Your task to perform on an android device: When is my next appointment? Image 0: 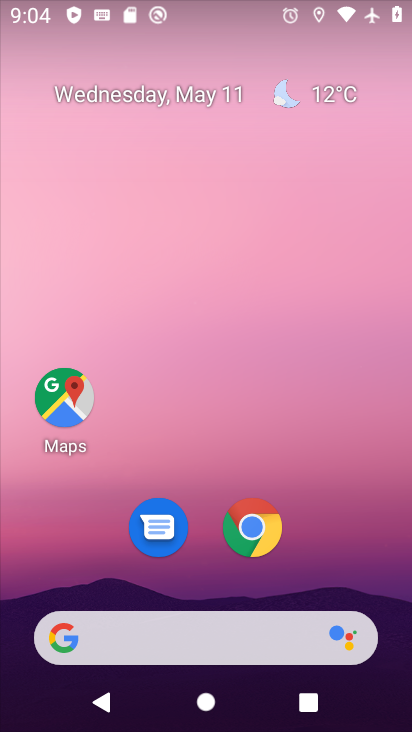
Step 0: drag from (344, 560) to (399, 120)
Your task to perform on an android device: When is my next appointment? Image 1: 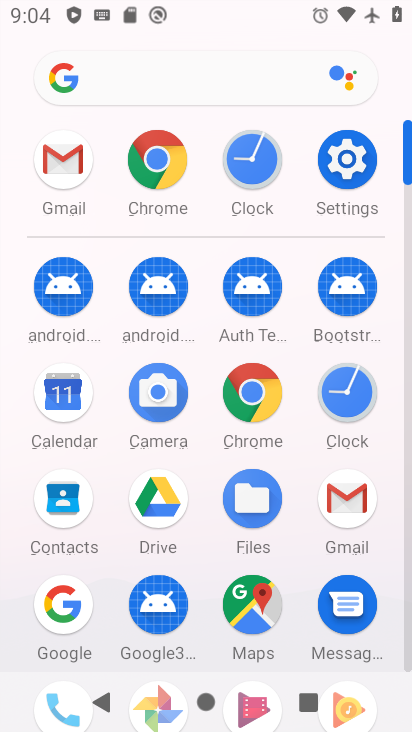
Step 1: click (60, 387)
Your task to perform on an android device: When is my next appointment? Image 2: 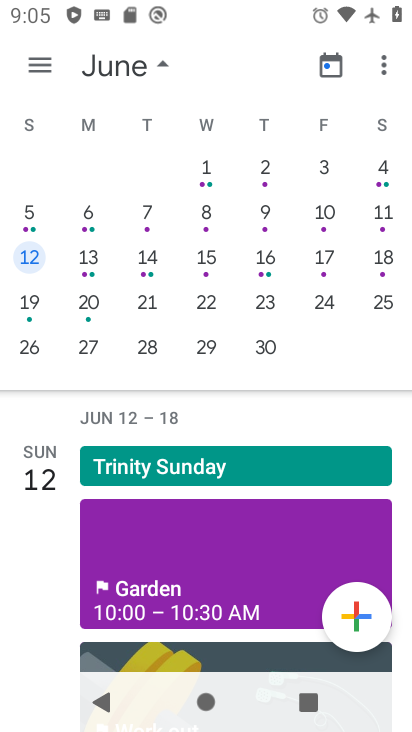
Step 2: drag from (37, 265) to (377, 242)
Your task to perform on an android device: When is my next appointment? Image 3: 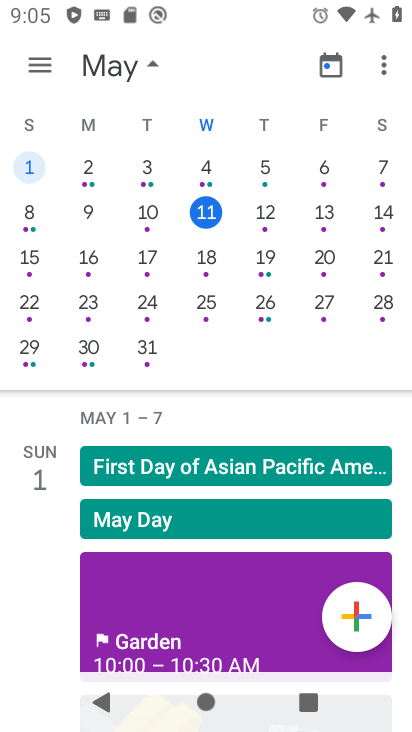
Step 3: click (192, 208)
Your task to perform on an android device: When is my next appointment? Image 4: 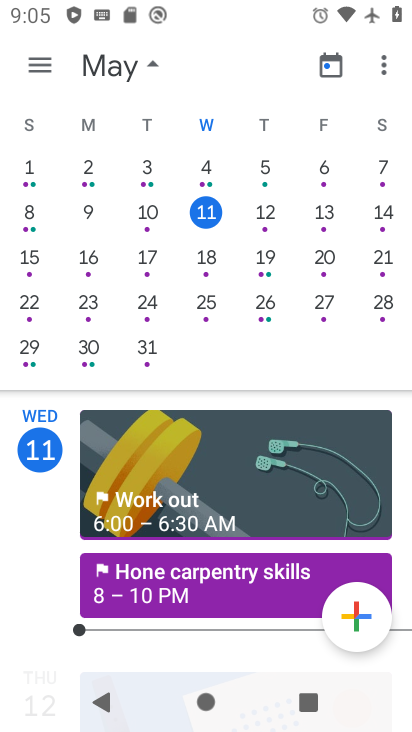
Step 4: task complete